Your task to perform on an android device: turn off smart reply in the gmail app Image 0: 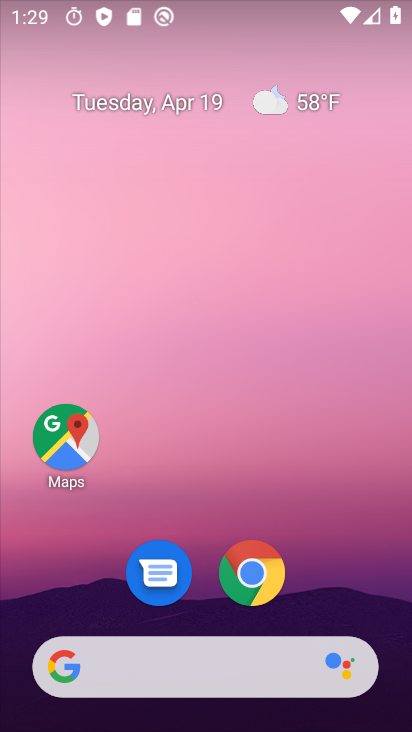
Step 0: drag from (367, 532) to (281, 85)
Your task to perform on an android device: turn off smart reply in the gmail app Image 1: 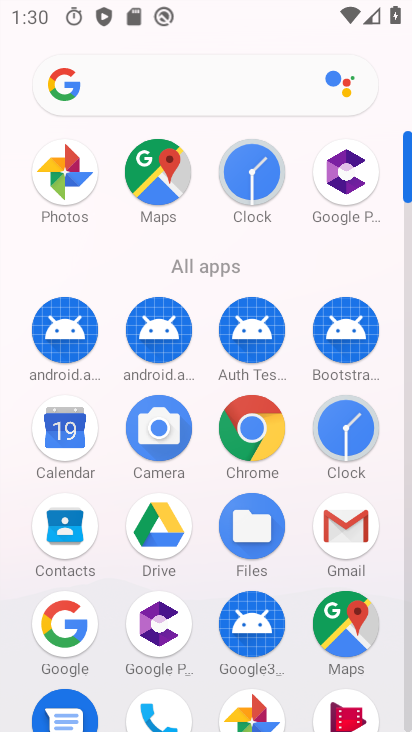
Step 1: click (328, 537)
Your task to perform on an android device: turn off smart reply in the gmail app Image 2: 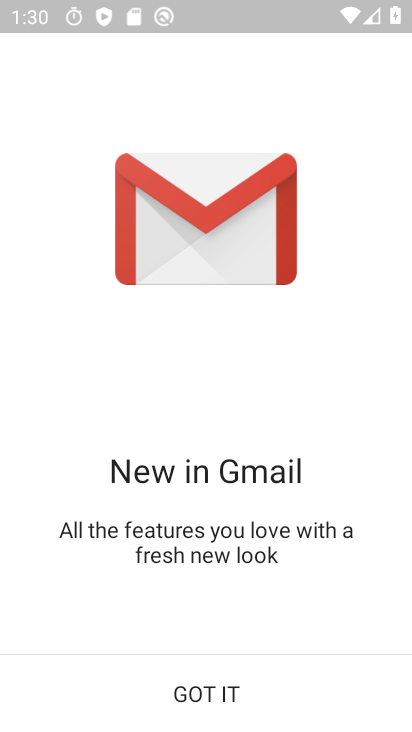
Step 2: click (233, 694)
Your task to perform on an android device: turn off smart reply in the gmail app Image 3: 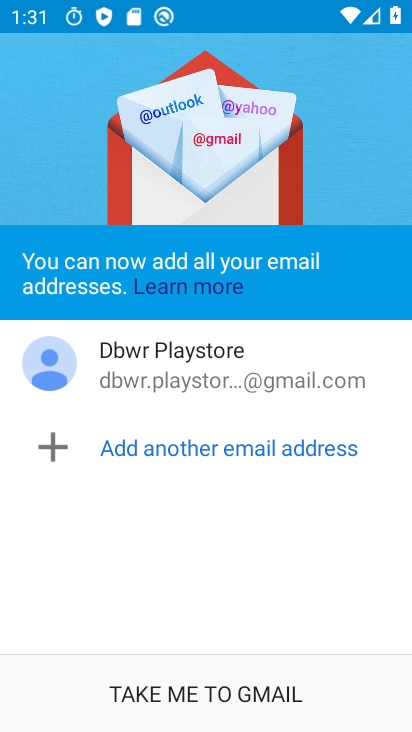
Step 3: click (154, 694)
Your task to perform on an android device: turn off smart reply in the gmail app Image 4: 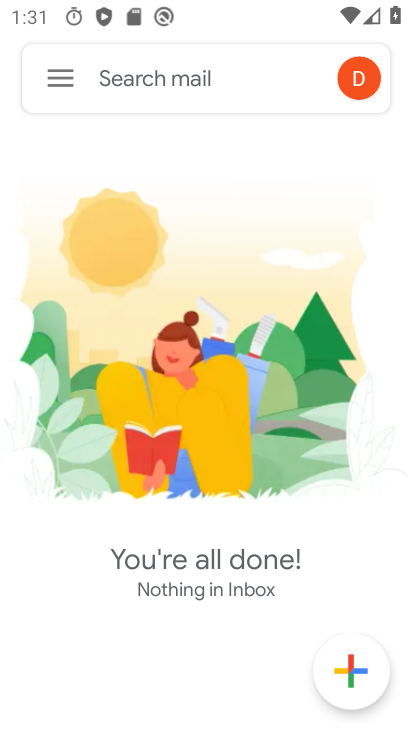
Step 4: click (69, 70)
Your task to perform on an android device: turn off smart reply in the gmail app Image 5: 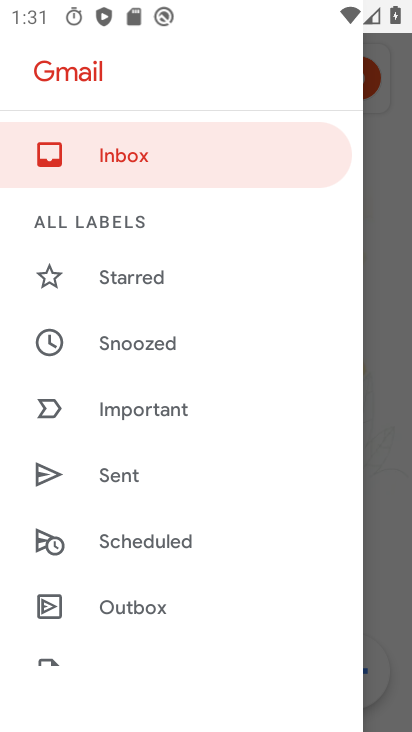
Step 5: drag from (206, 532) to (181, 104)
Your task to perform on an android device: turn off smart reply in the gmail app Image 6: 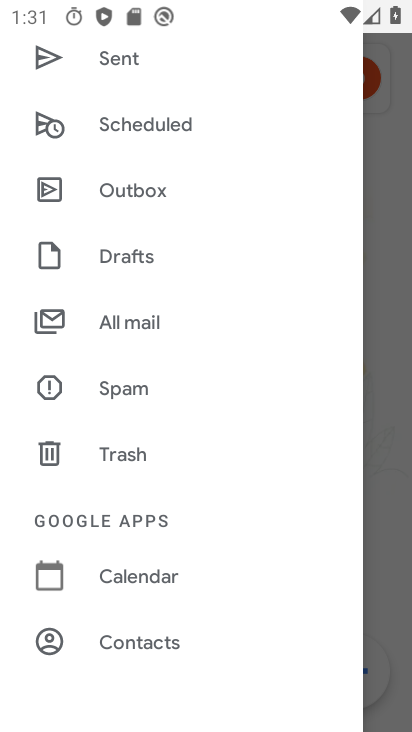
Step 6: drag from (266, 563) to (242, 81)
Your task to perform on an android device: turn off smart reply in the gmail app Image 7: 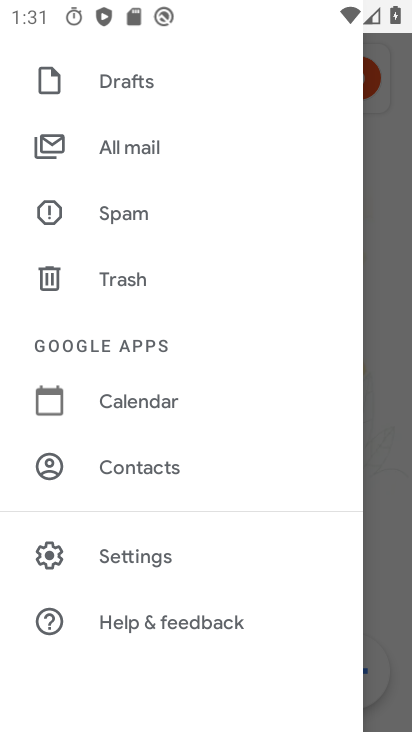
Step 7: drag from (258, 562) to (238, 143)
Your task to perform on an android device: turn off smart reply in the gmail app Image 8: 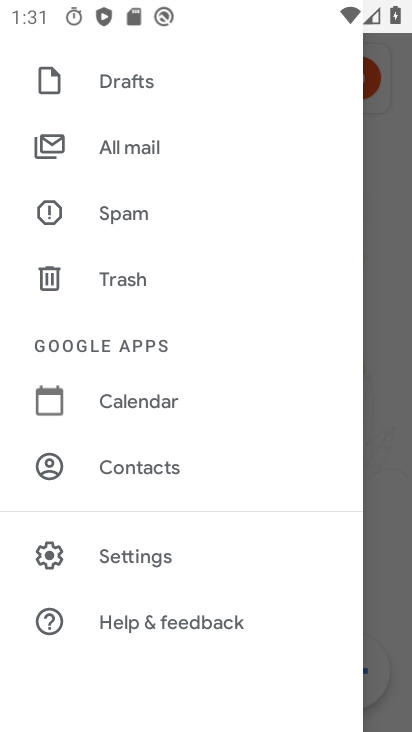
Step 8: click (180, 562)
Your task to perform on an android device: turn off smart reply in the gmail app Image 9: 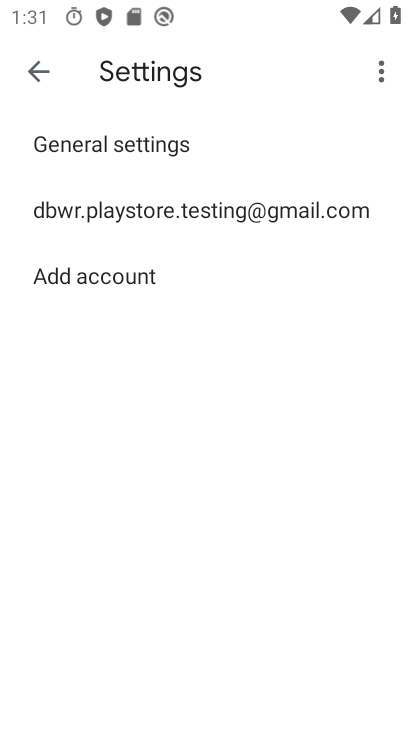
Step 9: click (93, 196)
Your task to perform on an android device: turn off smart reply in the gmail app Image 10: 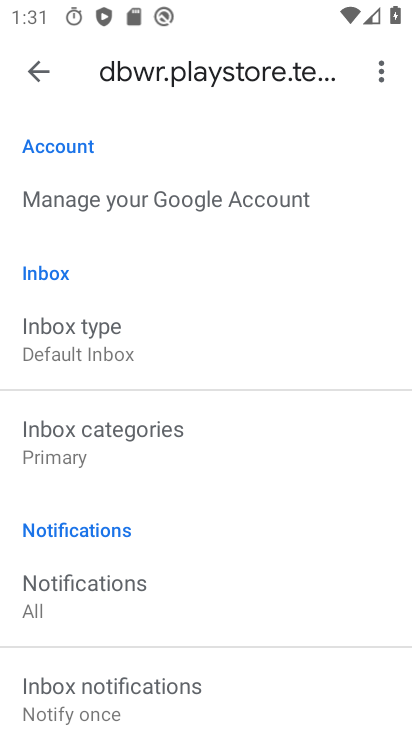
Step 10: drag from (153, 599) to (100, 199)
Your task to perform on an android device: turn off smart reply in the gmail app Image 11: 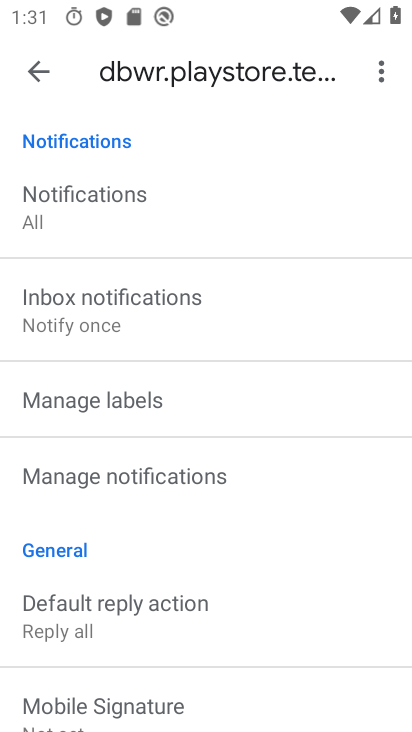
Step 11: drag from (232, 636) to (217, 223)
Your task to perform on an android device: turn off smart reply in the gmail app Image 12: 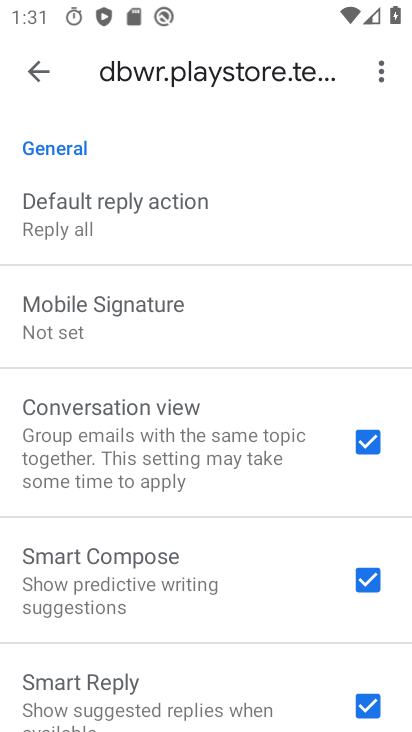
Step 12: drag from (244, 602) to (220, 228)
Your task to perform on an android device: turn off smart reply in the gmail app Image 13: 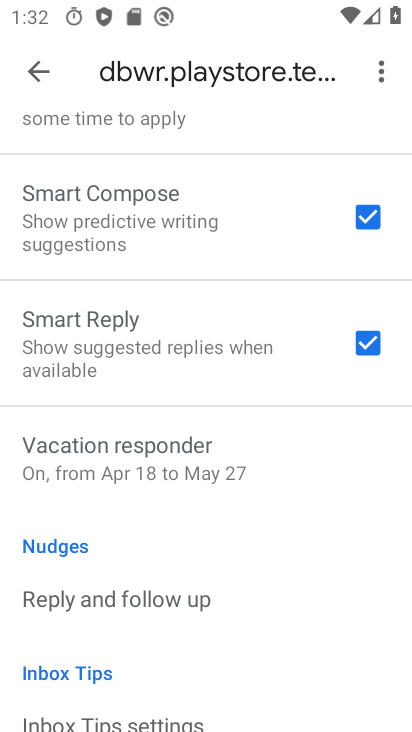
Step 13: click (201, 335)
Your task to perform on an android device: turn off smart reply in the gmail app Image 14: 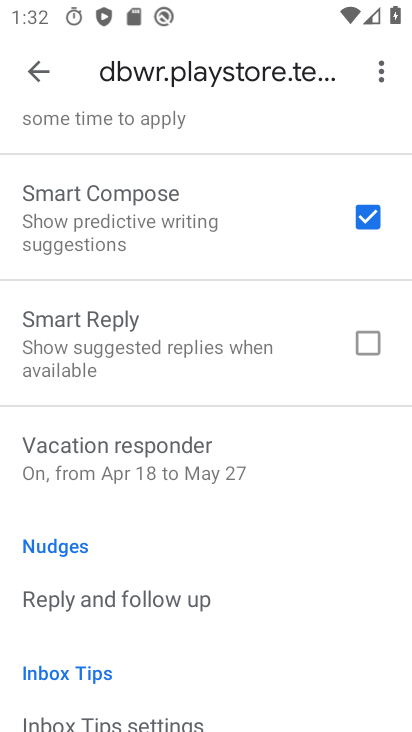
Step 14: task complete